Your task to perform on an android device: change timer sound Image 0: 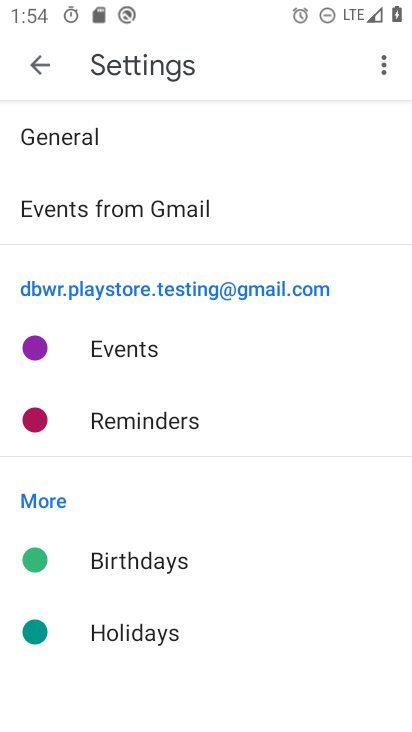
Step 0: press home button
Your task to perform on an android device: change timer sound Image 1: 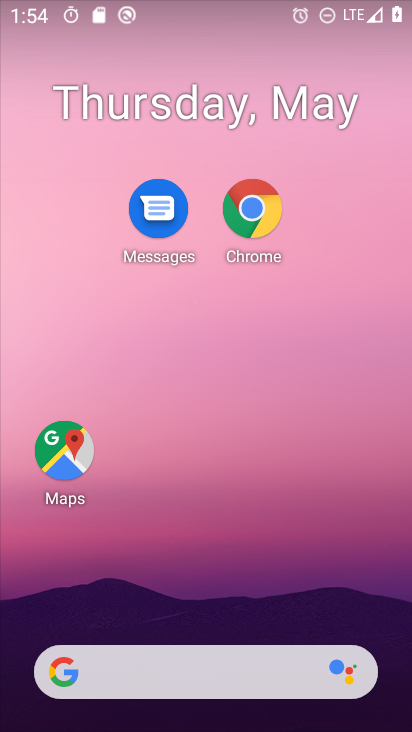
Step 1: drag from (220, 565) to (175, 9)
Your task to perform on an android device: change timer sound Image 2: 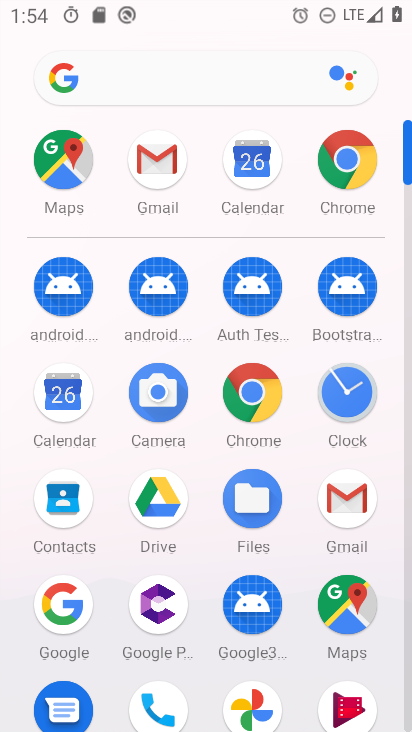
Step 2: click (350, 398)
Your task to perform on an android device: change timer sound Image 3: 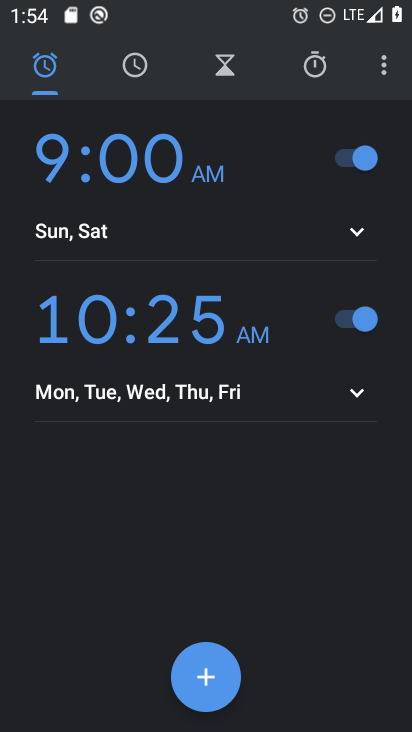
Step 3: click (379, 61)
Your task to perform on an android device: change timer sound Image 4: 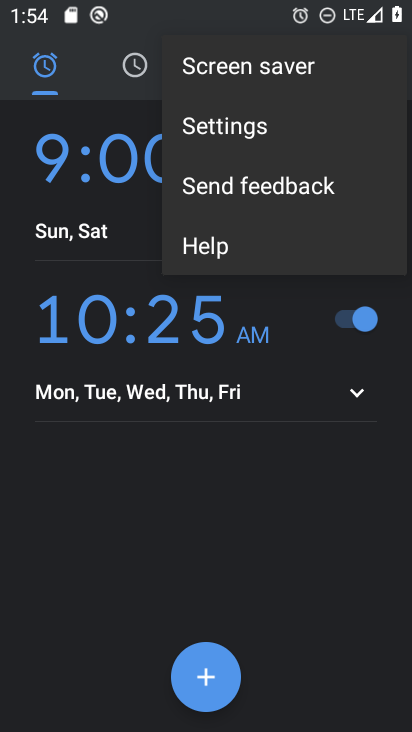
Step 4: click (280, 121)
Your task to perform on an android device: change timer sound Image 5: 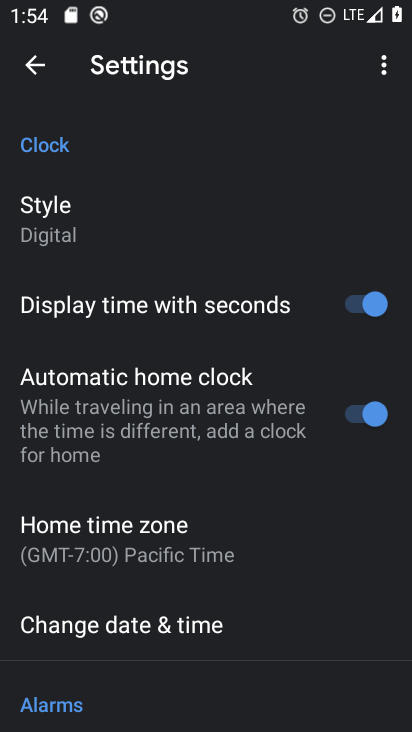
Step 5: drag from (129, 681) to (138, 301)
Your task to perform on an android device: change timer sound Image 6: 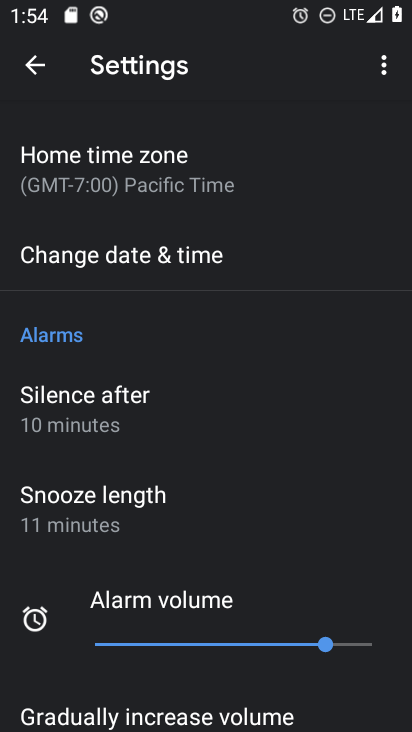
Step 6: drag from (118, 663) to (120, 390)
Your task to perform on an android device: change timer sound Image 7: 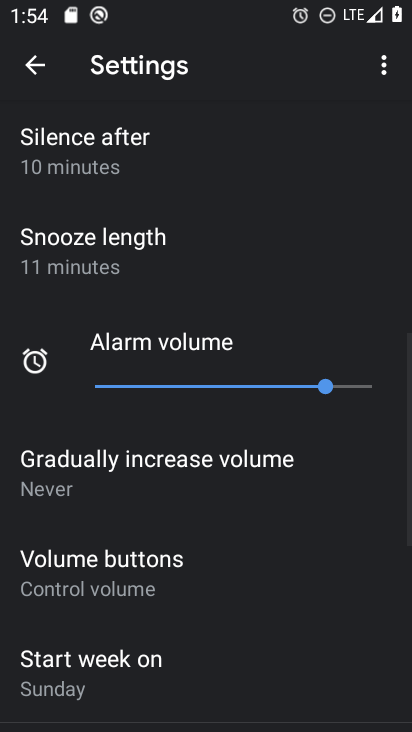
Step 7: drag from (157, 686) to (139, 380)
Your task to perform on an android device: change timer sound Image 8: 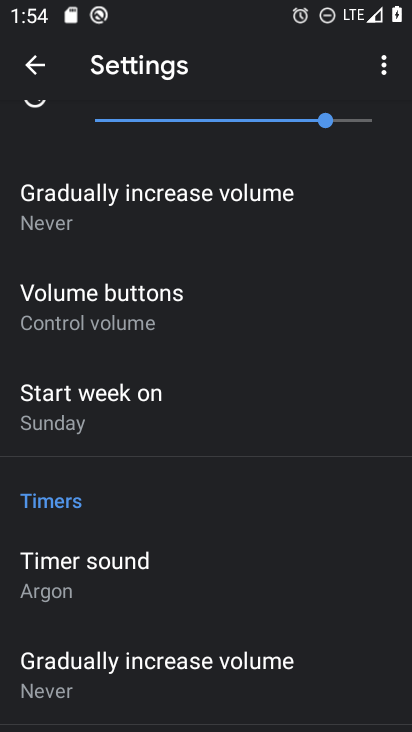
Step 8: click (111, 577)
Your task to perform on an android device: change timer sound Image 9: 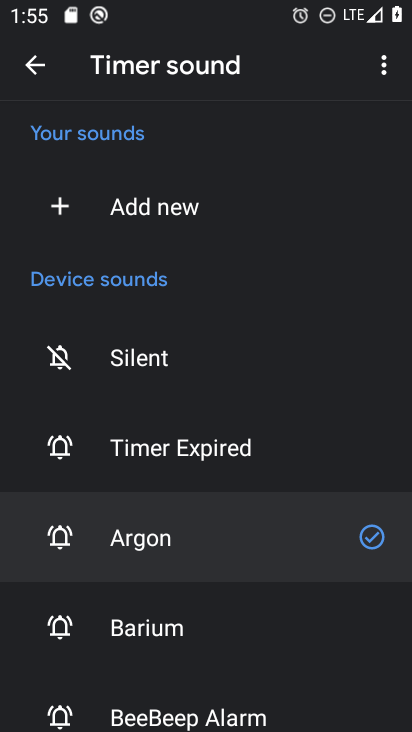
Step 9: click (116, 655)
Your task to perform on an android device: change timer sound Image 10: 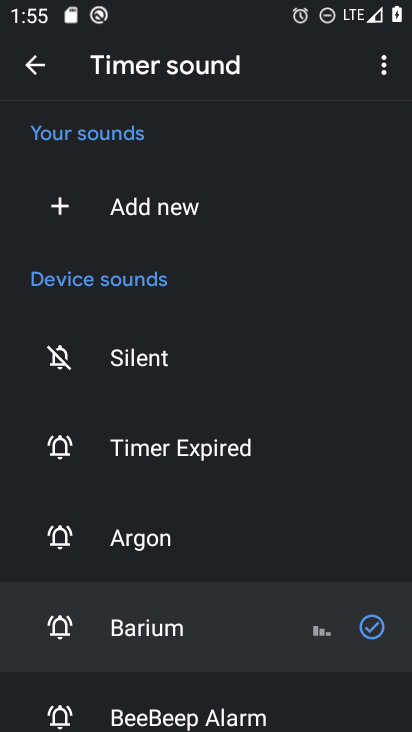
Step 10: task complete